Your task to perform on an android device: Go to ESPN.com Image 0: 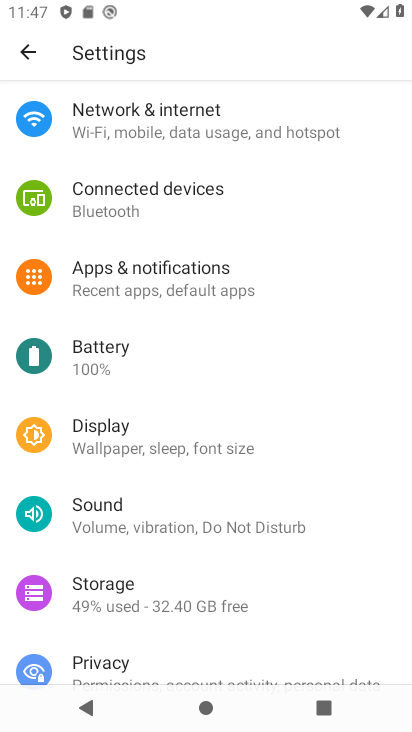
Step 0: press home button
Your task to perform on an android device: Go to ESPN.com Image 1: 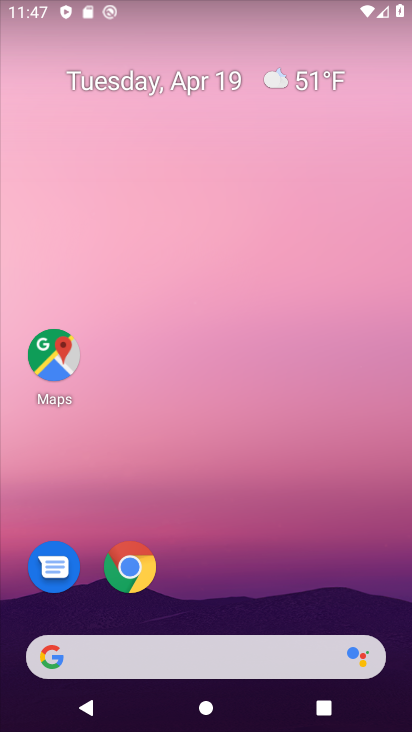
Step 1: click (123, 564)
Your task to perform on an android device: Go to ESPN.com Image 2: 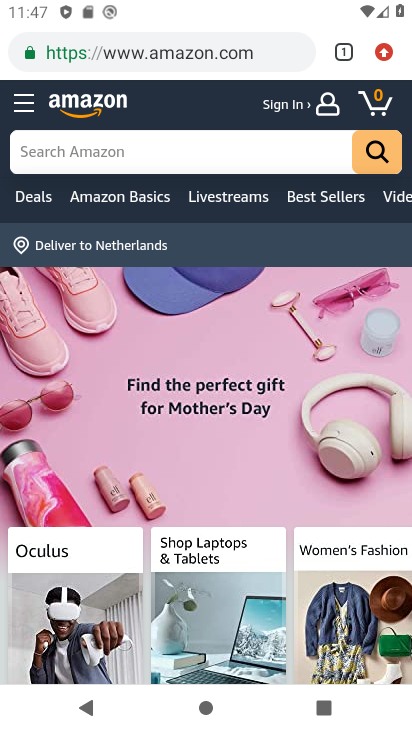
Step 2: click (196, 51)
Your task to perform on an android device: Go to ESPN.com Image 3: 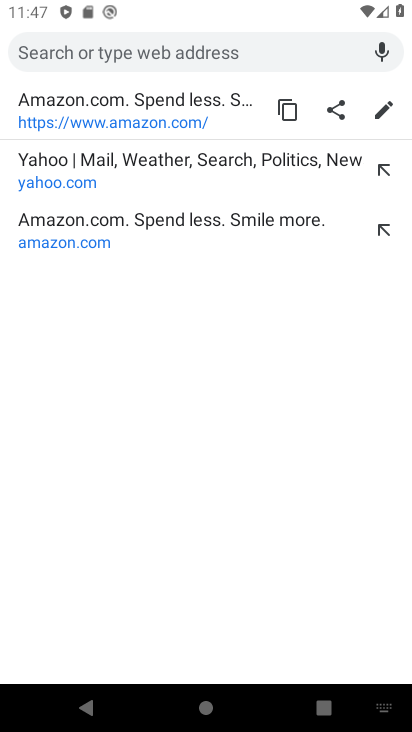
Step 3: type "ESPN.com"
Your task to perform on an android device: Go to ESPN.com Image 4: 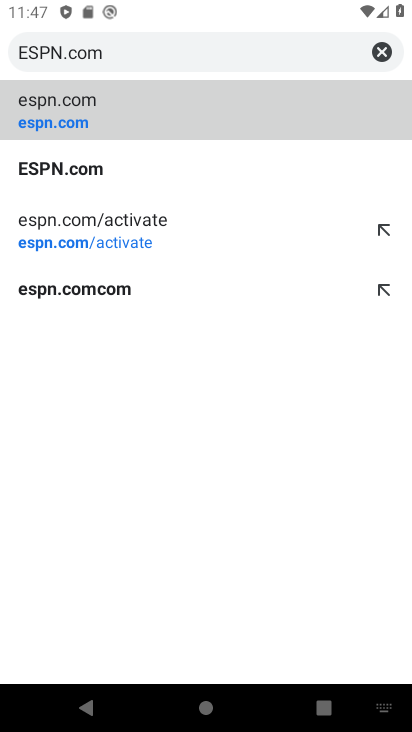
Step 4: click (66, 168)
Your task to perform on an android device: Go to ESPN.com Image 5: 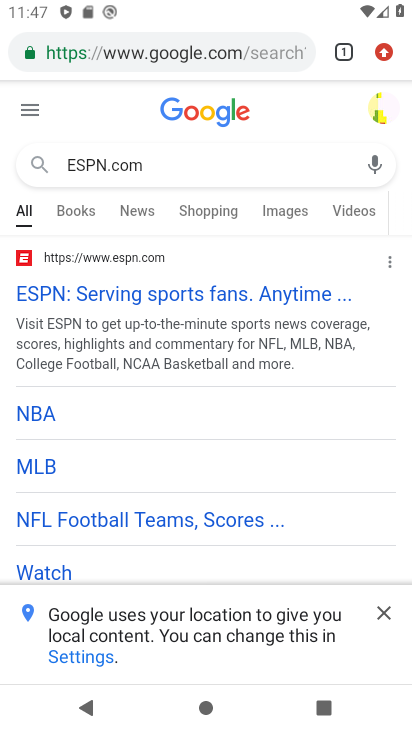
Step 5: task complete